Your task to perform on an android device: install app "Paramount+ | Peak Streaming" Image 0: 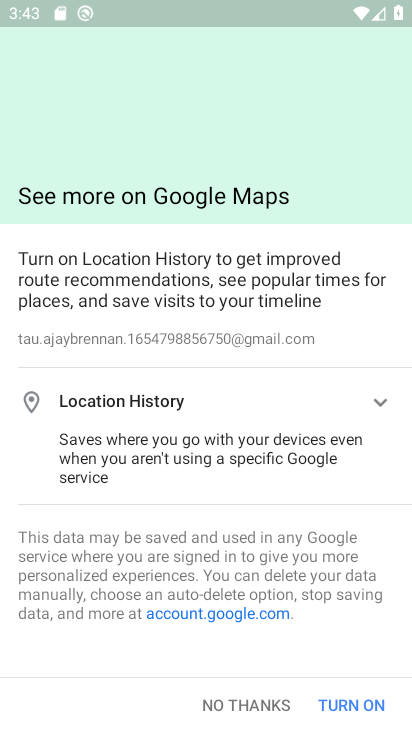
Step 0: press home button
Your task to perform on an android device: install app "Paramount+ | Peak Streaming" Image 1: 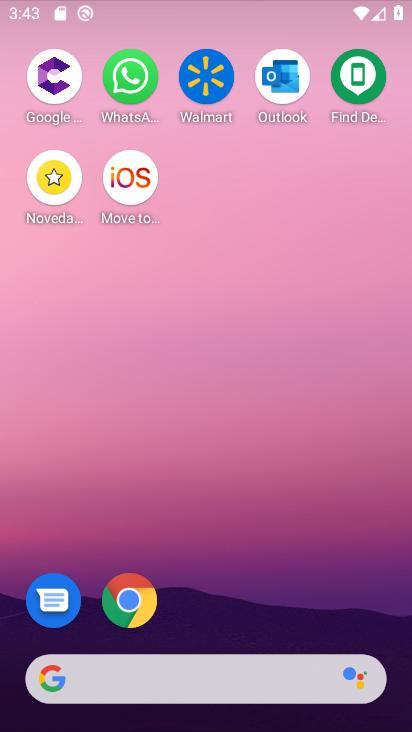
Step 1: drag from (265, 462) to (264, 62)
Your task to perform on an android device: install app "Paramount+ | Peak Streaming" Image 2: 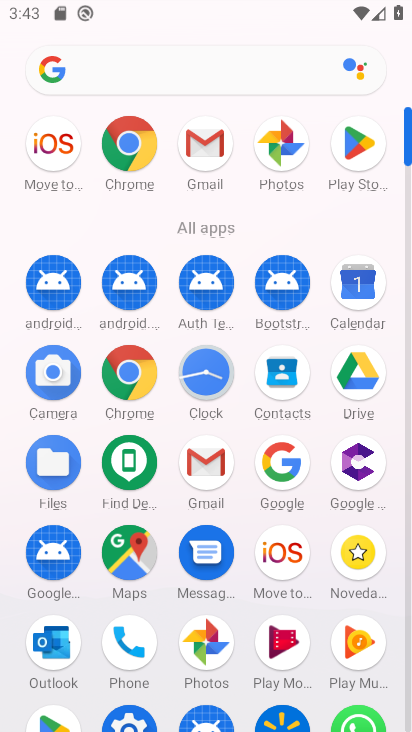
Step 2: click (370, 143)
Your task to perform on an android device: install app "Paramount+ | Peak Streaming" Image 3: 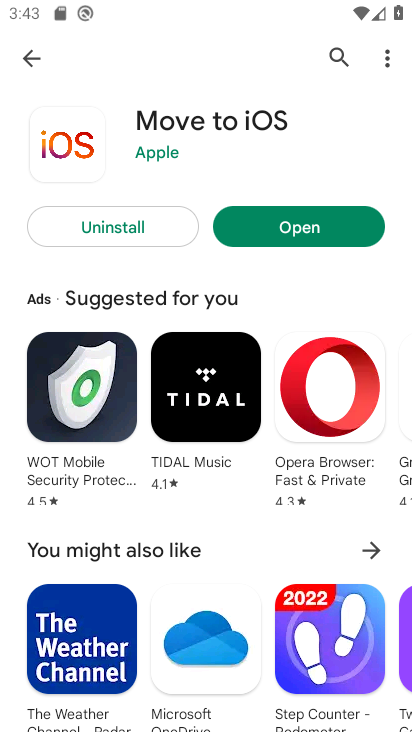
Step 3: click (330, 62)
Your task to perform on an android device: install app "Paramount+ | Peak Streaming" Image 4: 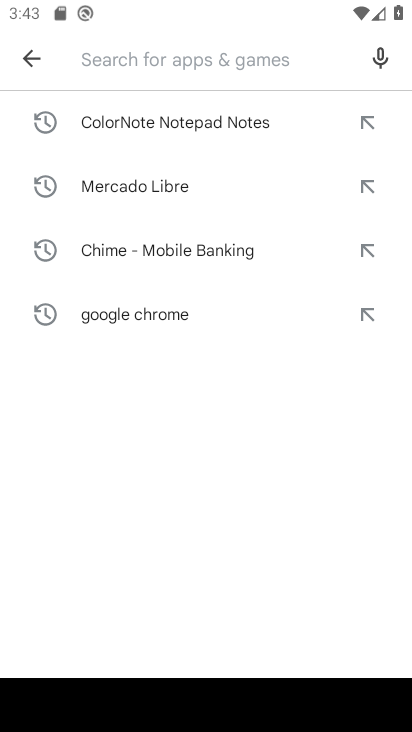
Step 4: type "Paramount+ | Peak Streaming"
Your task to perform on an android device: install app "Paramount+ | Peak Streaming" Image 5: 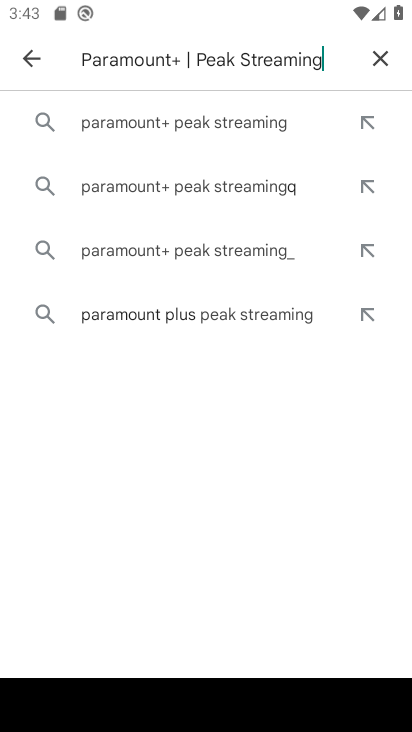
Step 5: press enter
Your task to perform on an android device: install app "Paramount+ | Peak Streaming" Image 6: 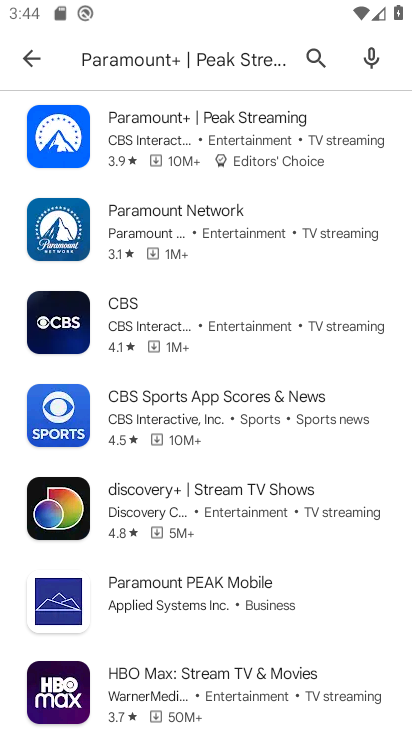
Step 6: click (180, 139)
Your task to perform on an android device: install app "Paramount+ | Peak Streaming" Image 7: 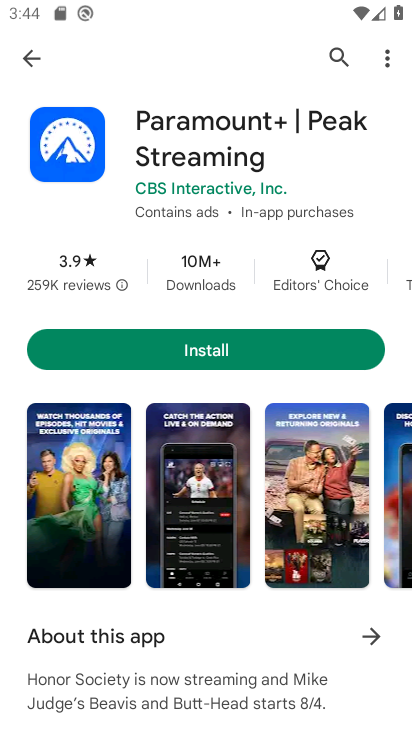
Step 7: click (297, 361)
Your task to perform on an android device: install app "Paramount+ | Peak Streaming" Image 8: 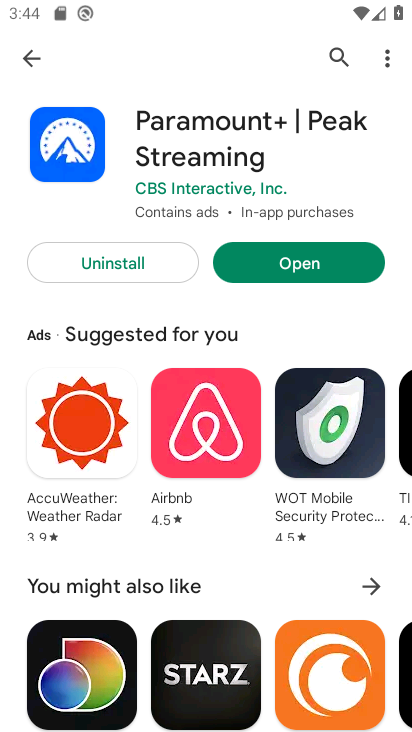
Step 8: task complete